Your task to perform on an android device: refresh tabs in the chrome app Image 0: 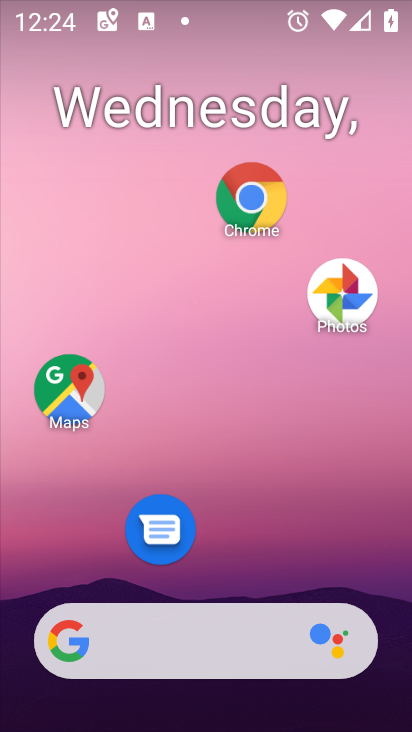
Step 0: click (265, 204)
Your task to perform on an android device: refresh tabs in the chrome app Image 1: 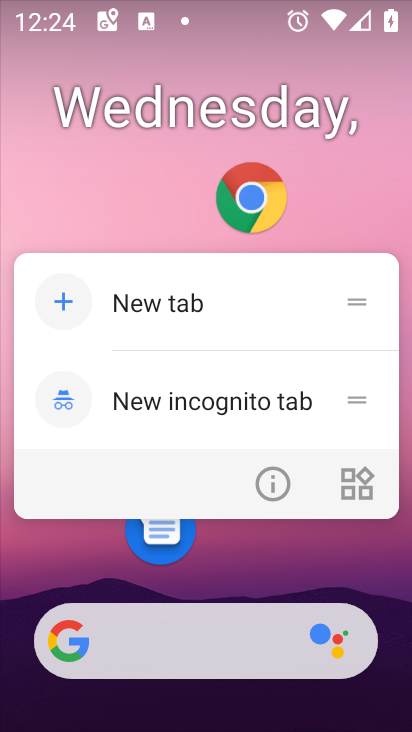
Step 1: click (264, 191)
Your task to perform on an android device: refresh tabs in the chrome app Image 2: 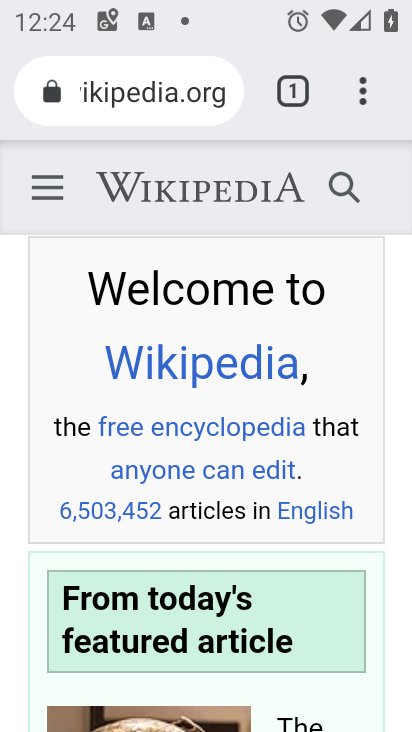
Step 2: click (357, 90)
Your task to perform on an android device: refresh tabs in the chrome app Image 3: 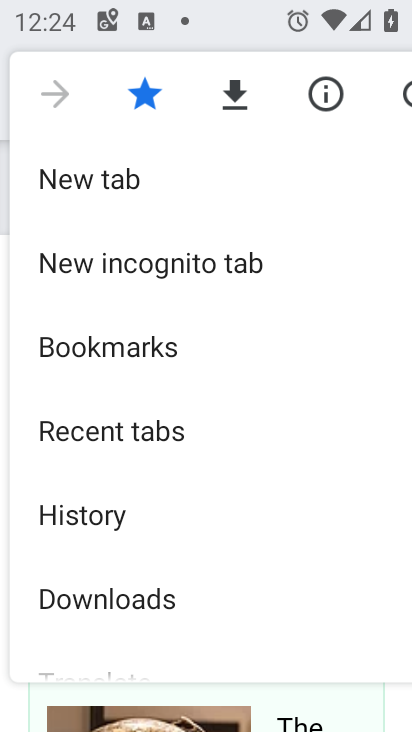
Step 3: click (405, 99)
Your task to perform on an android device: refresh tabs in the chrome app Image 4: 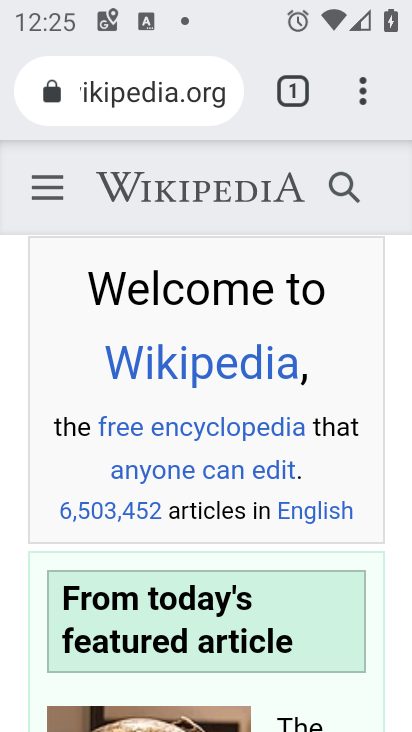
Step 4: task complete